Your task to perform on an android device: turn on location history Image 0: 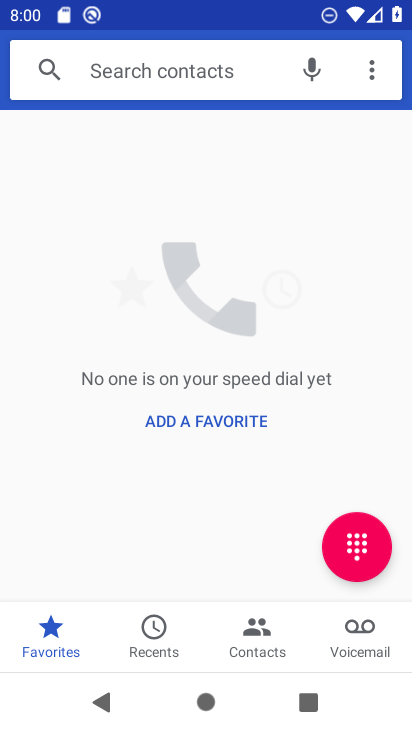
Step 0: press home button
Your task to perform on an android device: turn on location history Image 1: 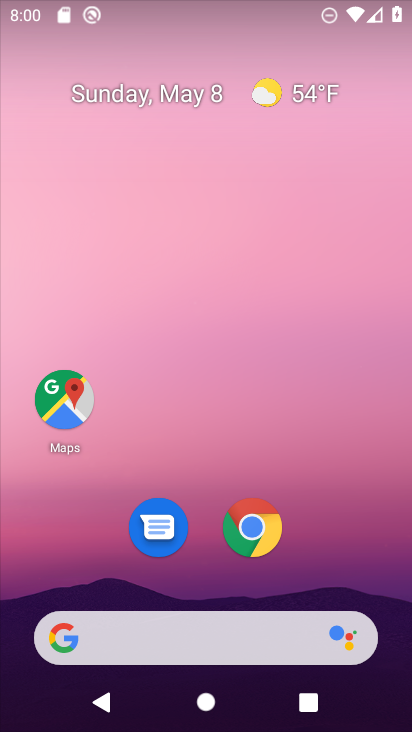
Step 1: drag from (346, 537) to (315, 1)
Your task to perform on an android device: turn on location history Image 2: 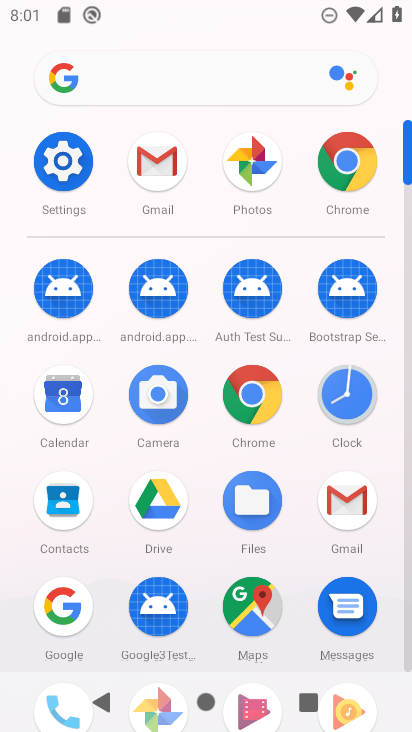
Step 2: click (57, 158)
Your task to perform on an android device: turn on location history Image 3: 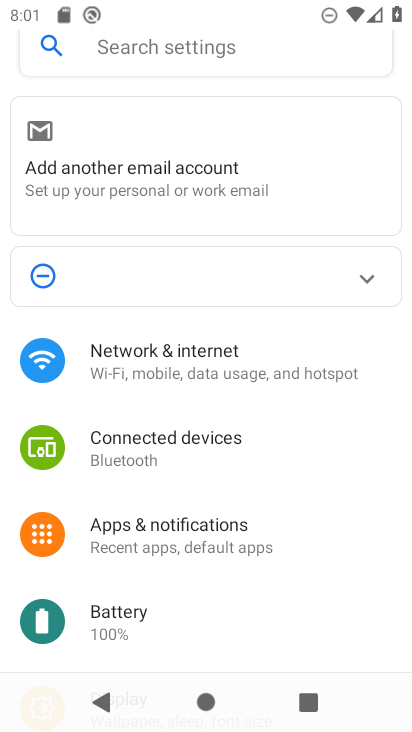
Step 3: drag from (227, 607) to (303, 75)
Your task to perform on an android device: turn on location history Image 4: 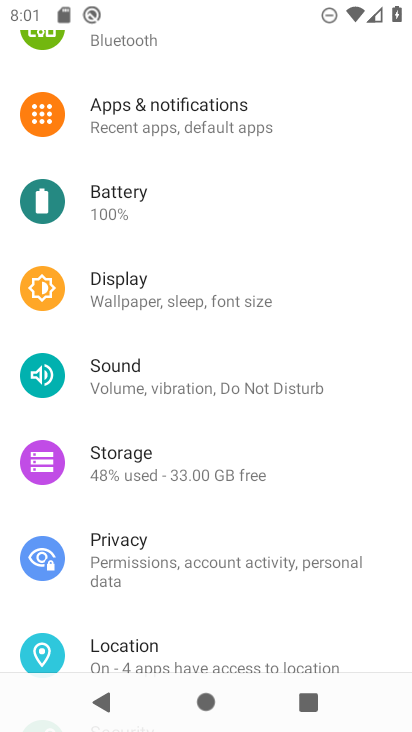
Step 4: drag from (91, 504) to (239, 107)
Your task to perform on an android device: turn on location history Image 5: 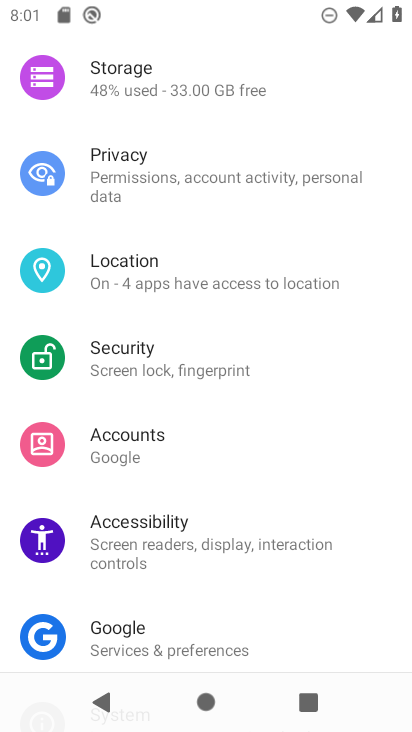
Step 5: click (166, 275)
Your task to perform on an android device: turn on location history Image 6: 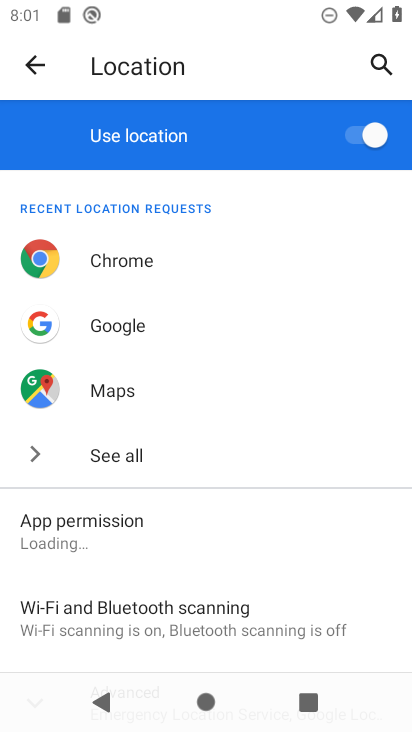
Step 6: drag from (285, 576) to (320, 232)
Your task to perform on an android device: turn on location history Image 7: 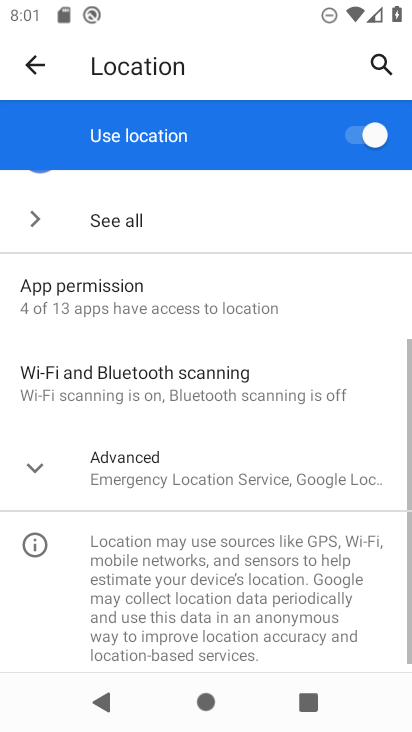
Step 7: click (146, 450)
Your task to perform on an android device: turn on location history Image 8: 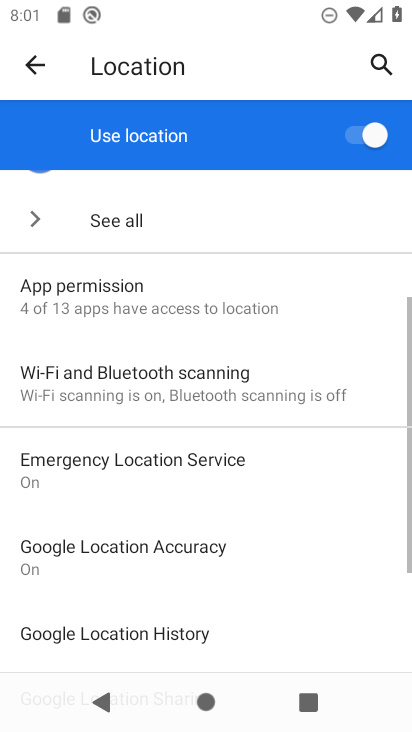
Step 8: drag from (275, 511) to (319, 59)
Your task to perform on an android device: turn on location history Image 9: 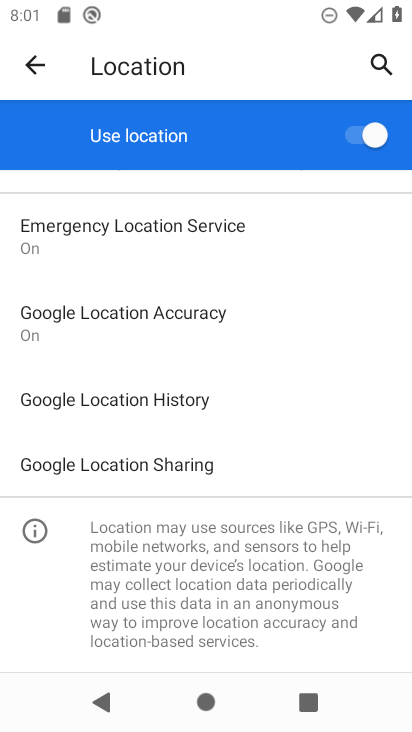
Step 9: click (165, 405)
Your task to perform on an android device: turn on location history Image 10: 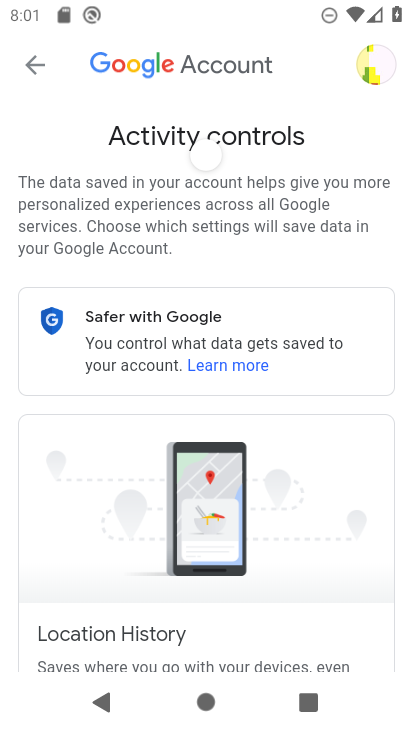
Step 10: task complete